Your task to perform on an android device: turn off location Image 0: 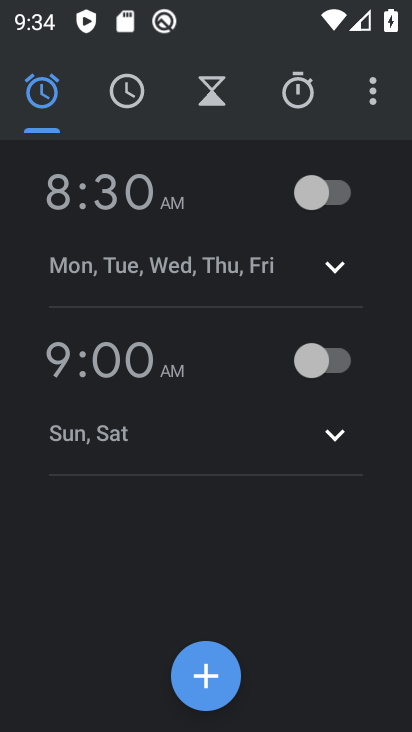
Step 0: press home button
Your task to perform on an android device: turn off location Image 1: 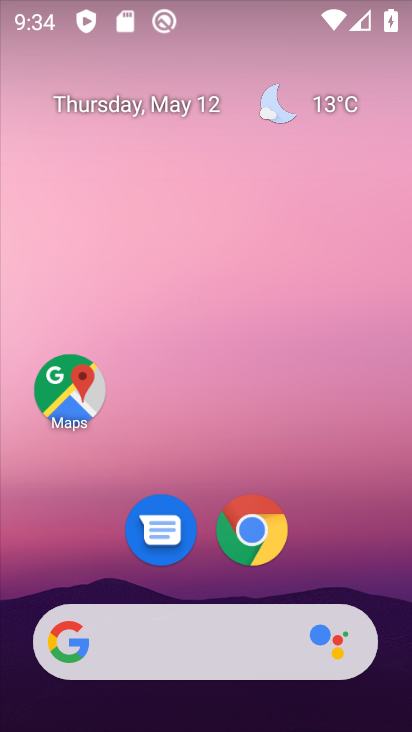
Step 1: drag from (319, 556) to (258, 100)
Your task to perform on an android device: turn off location Image 2: 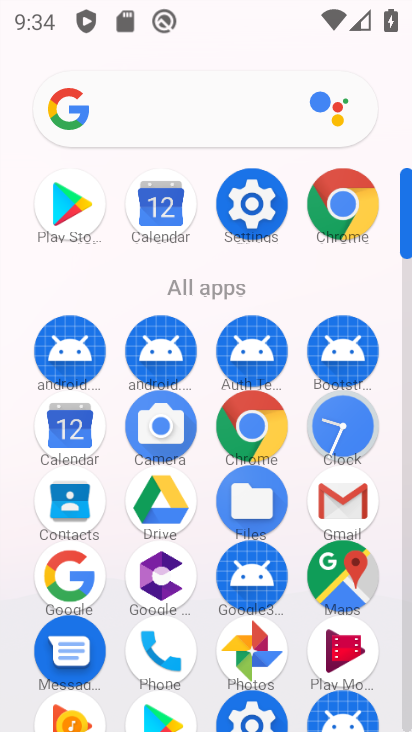
Step 2: click (256, 197)
Your task to perform on an android device: turn off location Image 3: 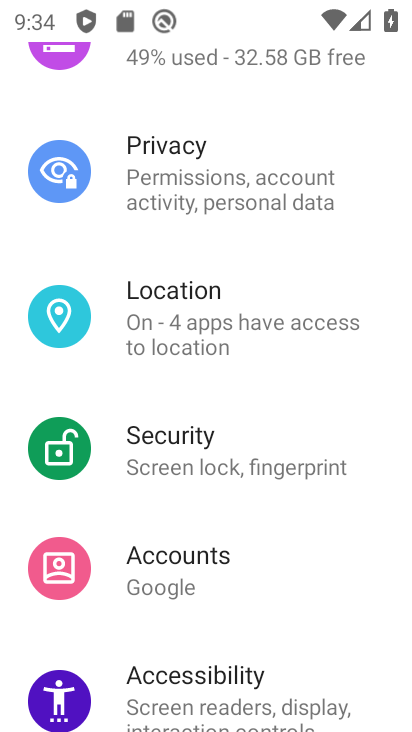
Step 3: drag from (256, 143) to (276, 448)
Your task to perform on an android device: turn off location Image 4: 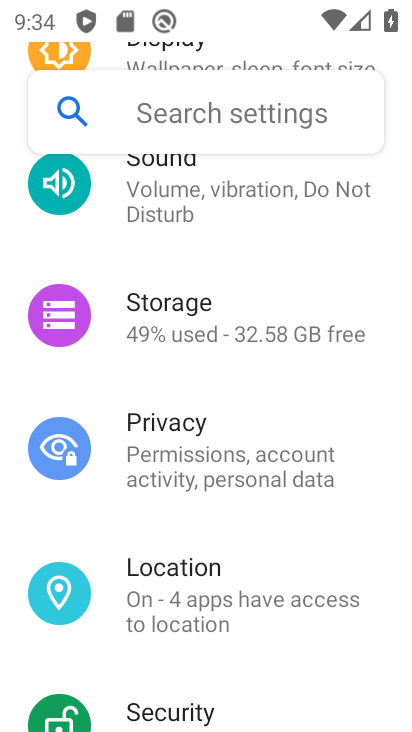
Step 4: drag from (247, 237) to (233, 523)
Your task to perform on an android device: turn off location Image 5: 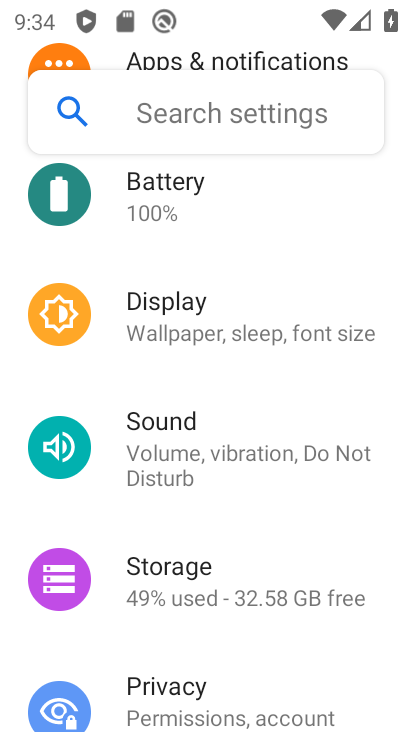
Step 5: drag from (224, 274) to (256, 484)
Your task to perform on an android device: turn off location Image 6: 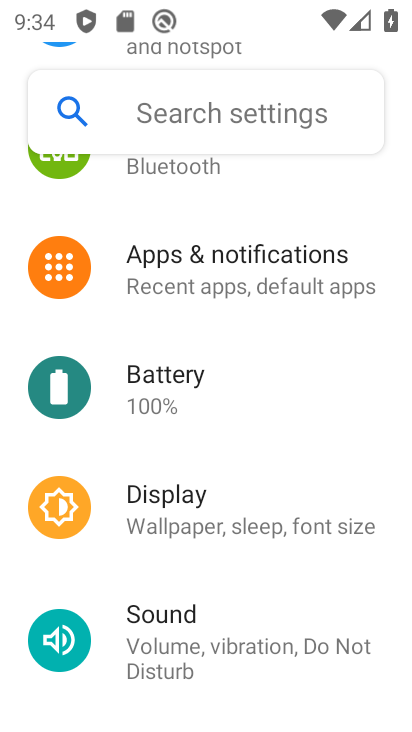
Step 6: drag from (232, 580) to (235, 185)
Your task to perform on an android device: turn off location Image 7: 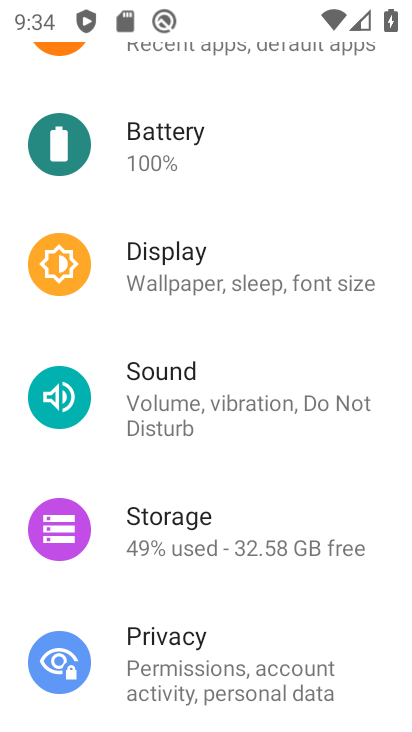
Step 7: drag from (215, 663) to (229, 343)
Your task to perform on an android device: turn off location Image 8: 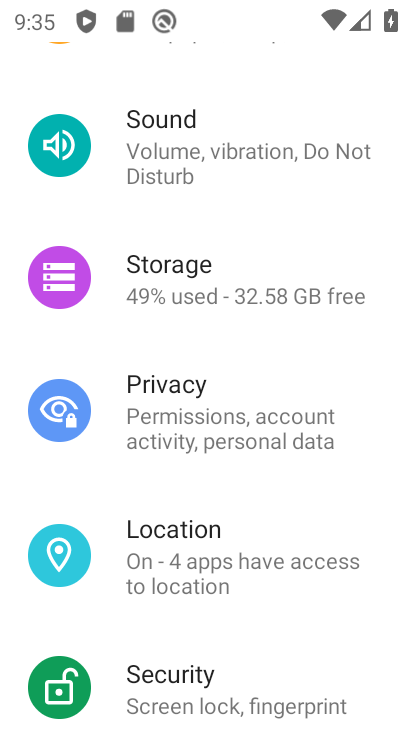
Step 8: click (206, 551)
Your task to perform on an android device: turn off location Image 9: 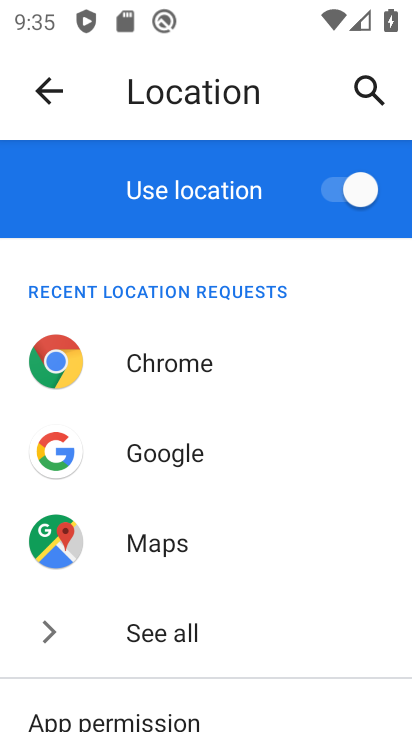
Step 9: drag from (239, 632) to (229, 420)
Your task to perform on an android device: turn off location Image 10: 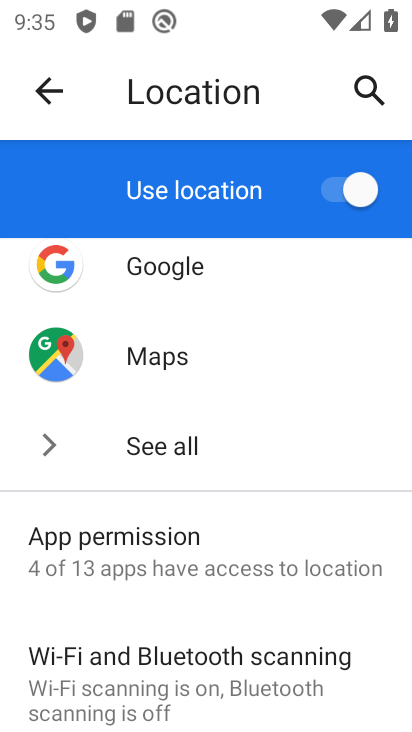
Step 10: click (327, 192)
Your task to perform on an android device: turn off location Image 11: 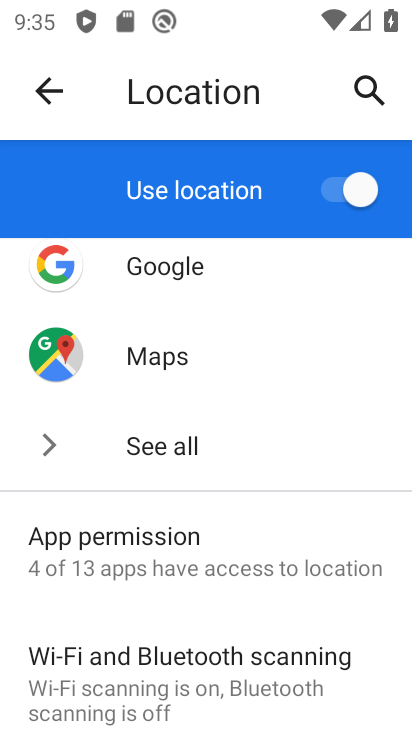
Step 11: click (327, 192)
Your task to perform on an android device: turn off location Image 12: 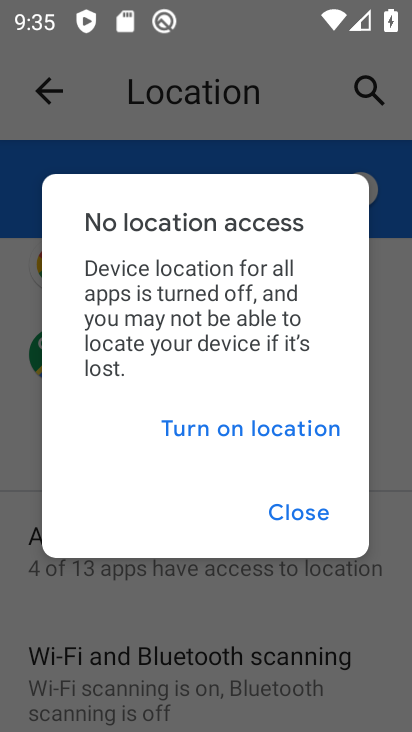
Step 12: click (302, 504)
Your task to perform on an android device: turn off location Image 13: 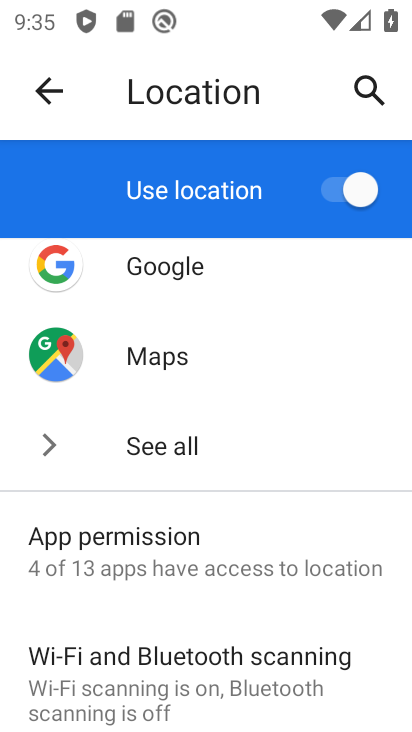
Step 13: click (327, 188)
Your task to perform on an android device: turn off location Image 14: 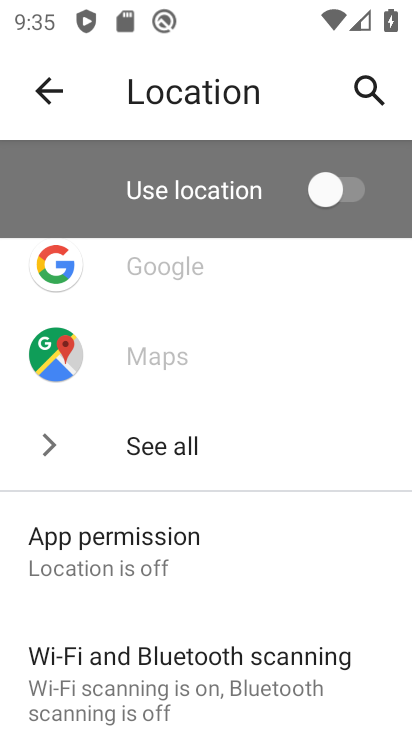
Step 14: task complete